Your task to perform on an android device: Go to battery settings Image 0: 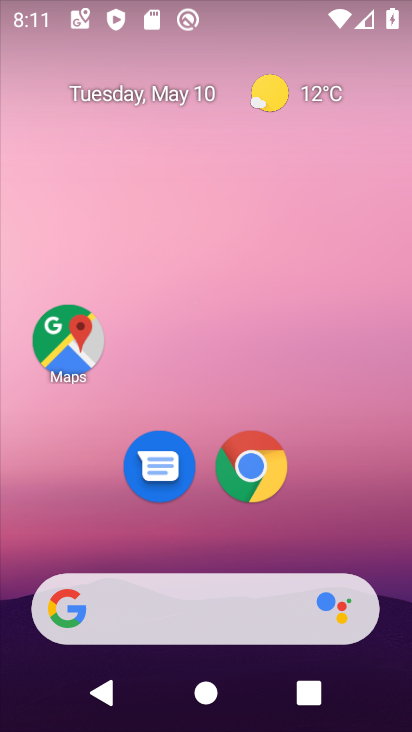
Step 0: drag from (234, 553) to (264, 2)
Your task to perform on an android device: Go to battery settings Image 1: 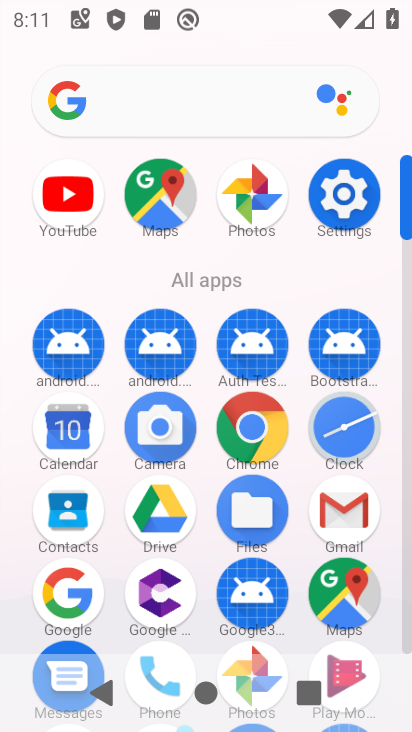
Step 1: click (342, 210)
Your task to perform on an android device: Go to battery settings Image 2: 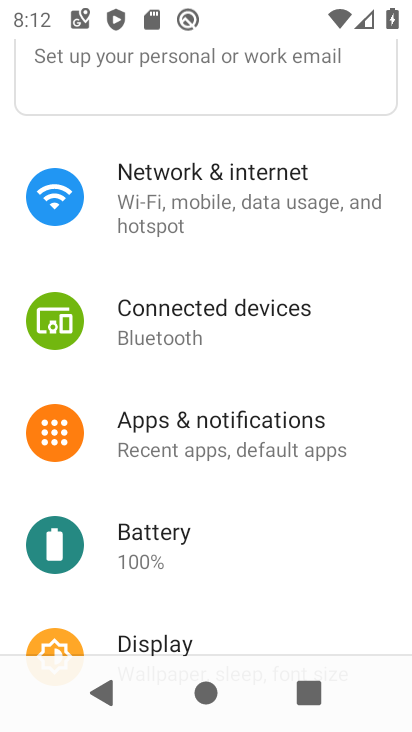
Step 2: click (201, 547)
Your task to perform on an android device: Go to battery settings Image 3: 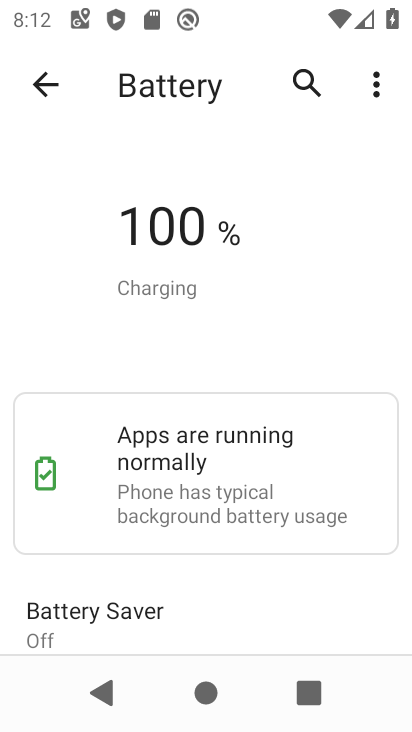
Step 3: task complete